Your task to perform on an android device: What is the news today? Image 0: 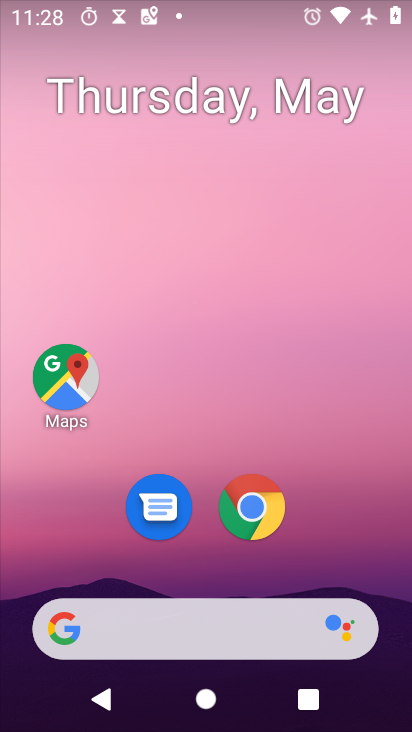
Step 0: drag from (309, 530) to (237, 34)
Your task to perform on an android device: What is the news today? Image 1: 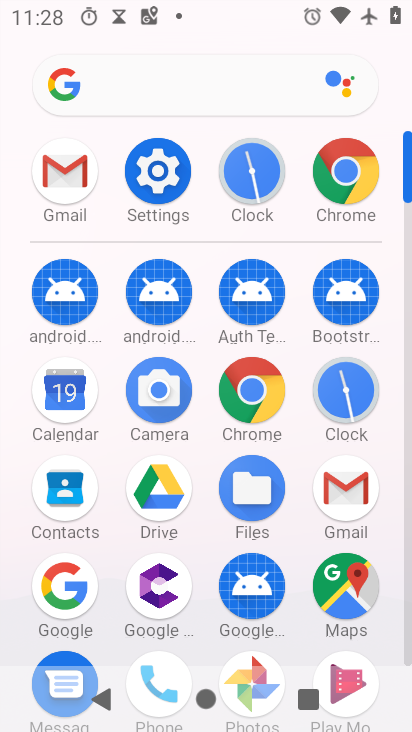
Step 1: drag from (7, 549) to (28, 176)
Your task to perform on an android device: What is the news today? Image 2: 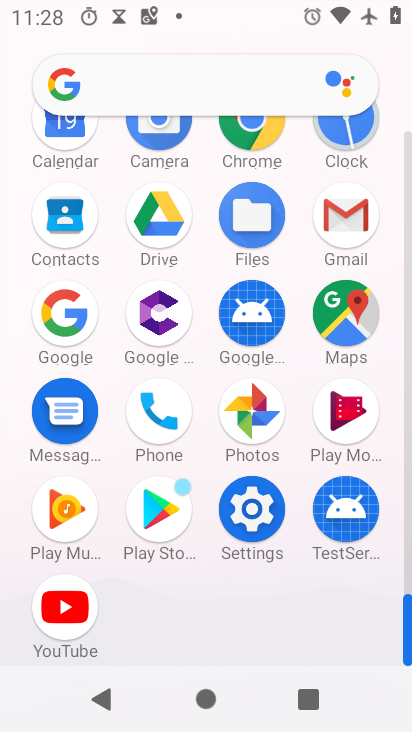
Step 2: click (253, 131)
Your task to perform on an android device: What is the news today? Image 3: 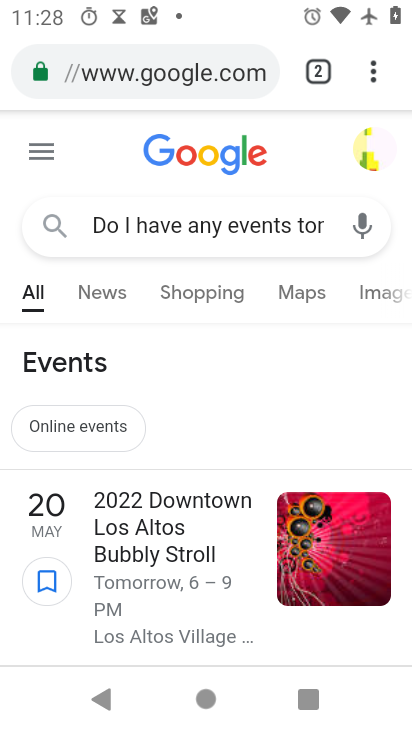
Step 3: click (171, 66)
Your task to perform on an android device: What is the news today? Image 4: 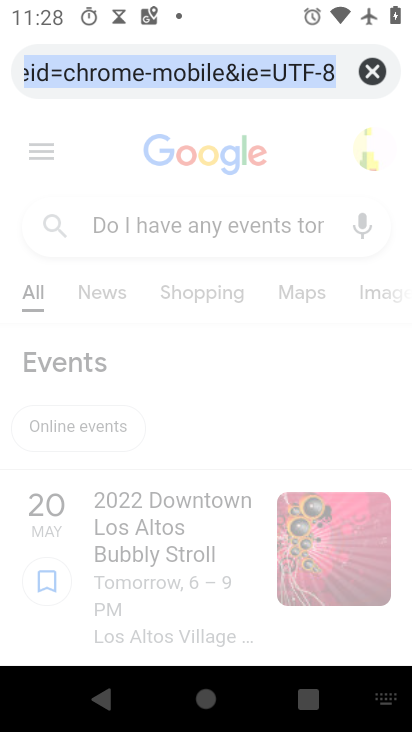
Step 4: click (365, 64)
Your task to perform on an android device: What is the news today? Image 5: 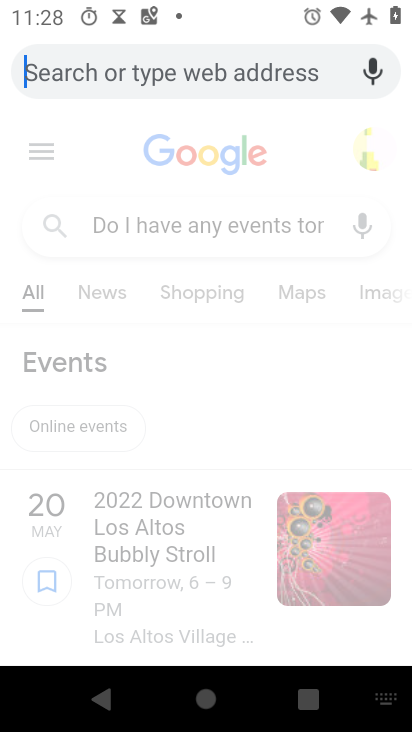
Step 5: type "What is the news today?"
Your task to perform on an android device: What is the news today? Image 6: 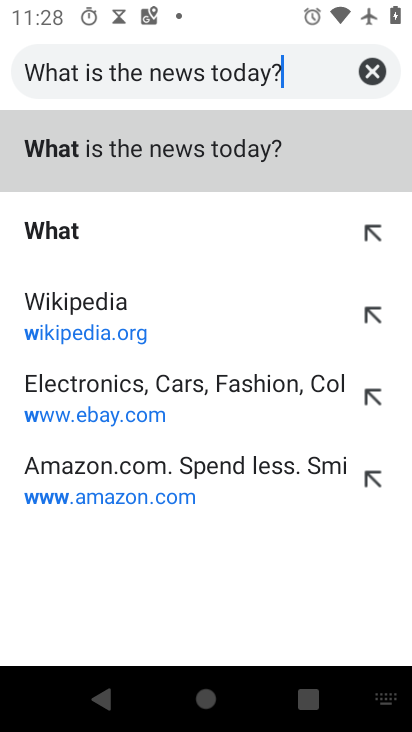
Step 6: type ""
Your task to perform on an android device: What is the news today? Image 7: 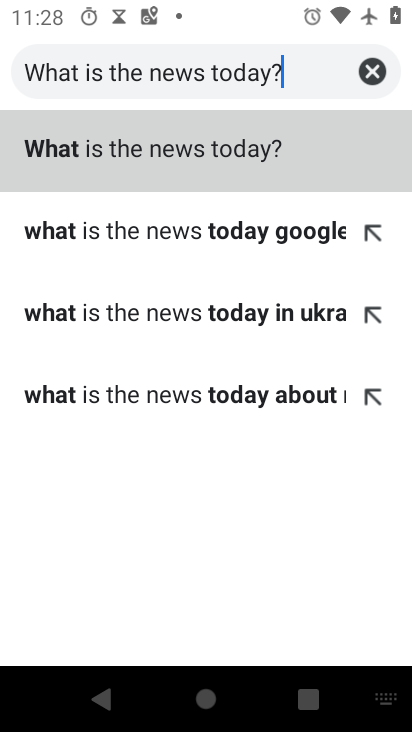
Step 7: click (145, 140)
Your task to perform on an android device: What is the news today? Image 8: 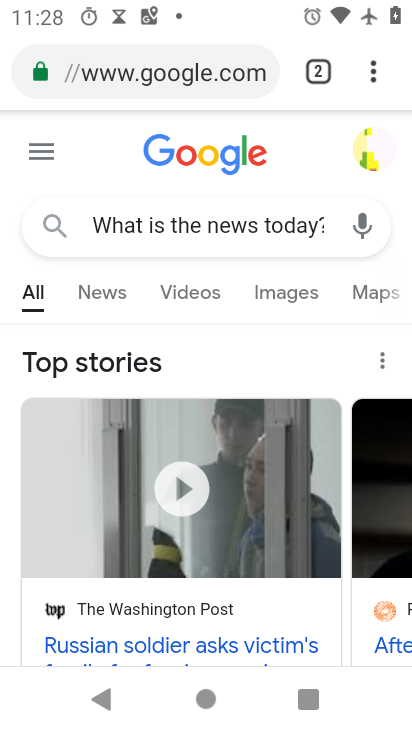
Step 8: task complete